Your task to perform on an android device: delete the emails in spam in the gmail app Image 0: 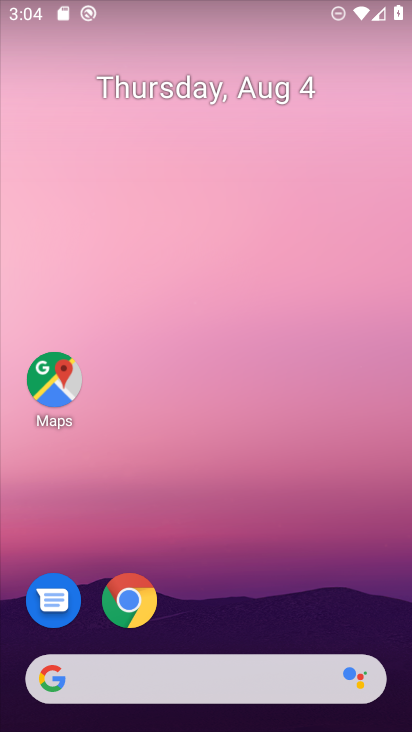
Step 0: drag from (114, 664) to (284, 170)
Your task to perform on an android device: delete the emails in spam in the gmail app Image 1: 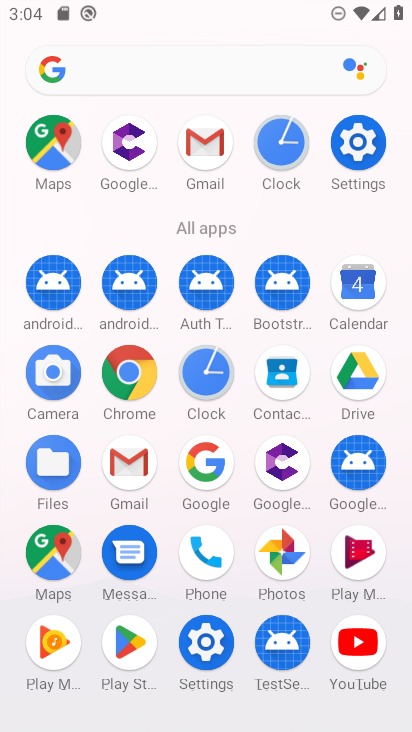
Step 1: click (202, 151)
Your task to perform on an android device: delete the emails in spam in the gmail app Image 2: 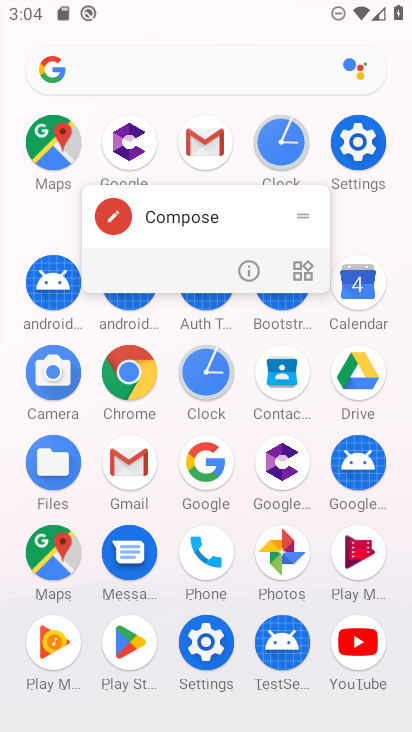
Step 2: click (201, 142)
Your task to perform on an android device: delete the emails in spam in the gmail app Image 3: 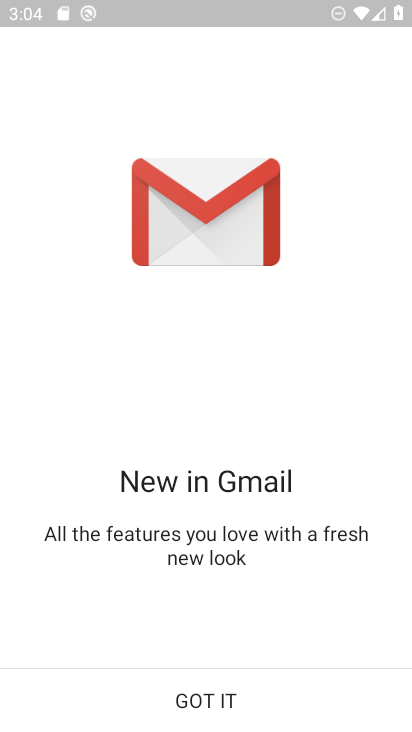
Step 3: click (200, 699)
Your task to perform on an android device: delete the emails in spam in the gmail app Image 4: 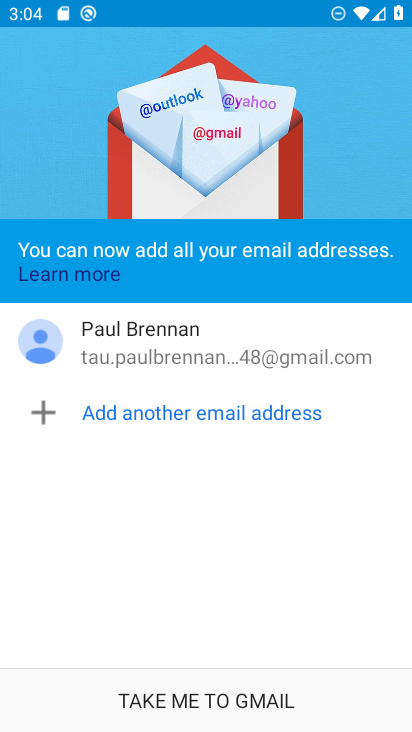
Step 4: click (200, 700)
Your task to perform on an android device: delete the emails in spam in the gmail app Image 5: 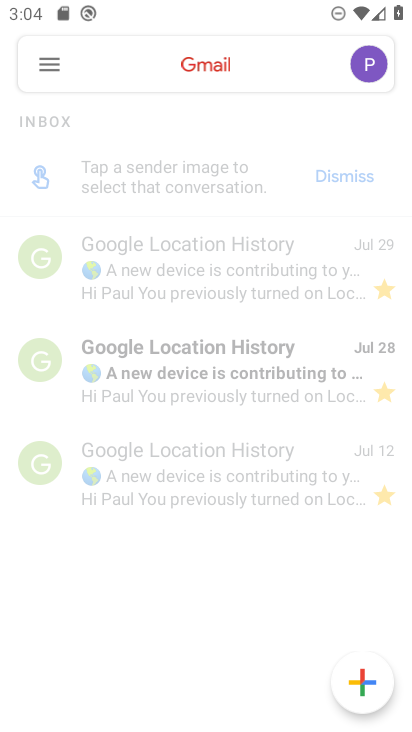
Step 5: click (50, 61)
Your task to perform on an android device: delete the emails in spam in the gmail app Image 6: 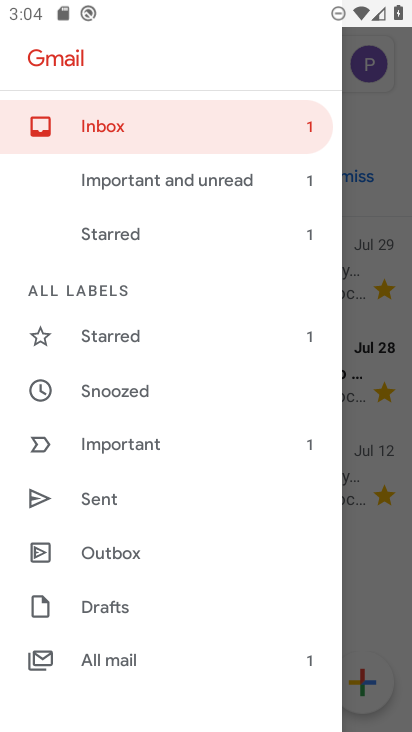
Step 6: drag from (167, 612) to (262, 194)
Your task to perform on an android device: delete the emails in spam in the gmail app Image 7: 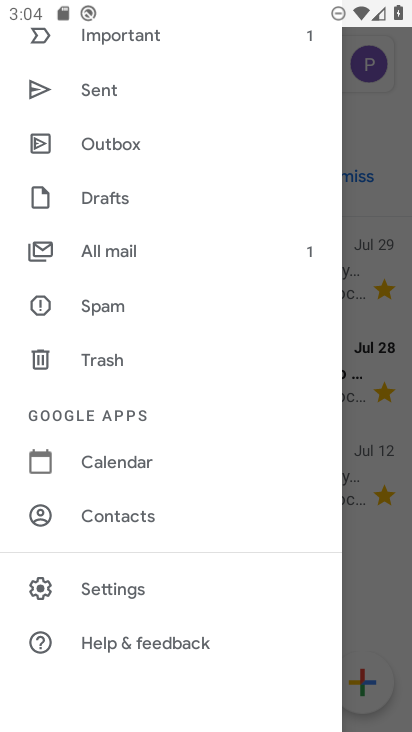
Step 7: click (102, 309)
Your task to perform on an android device: delete the emails in spam in the gmail app Image 8: 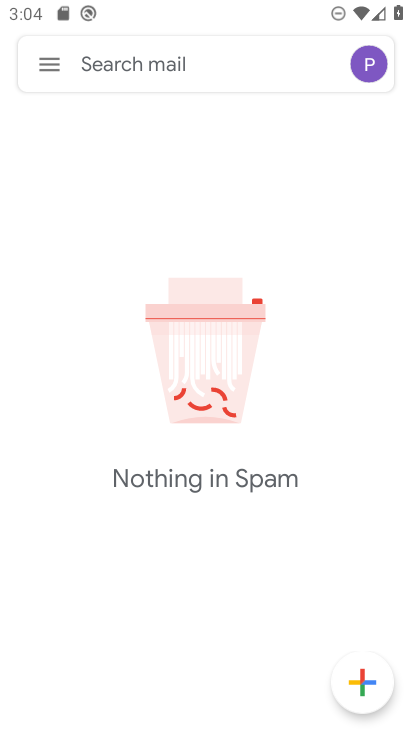
Step 8: task complete